Your task to perform on an android device: open a bookmark in the chrome app Image 0: 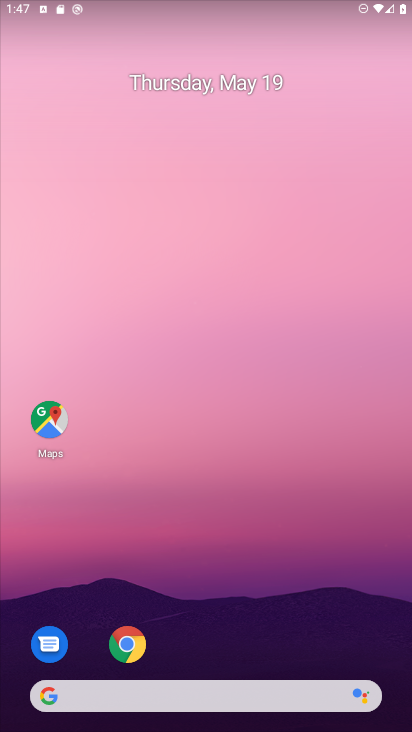
Step 0: drag from (321, 602) to (205, 7)
Your task to perform on an android device: open a bookmark in the chrome app Image 1: 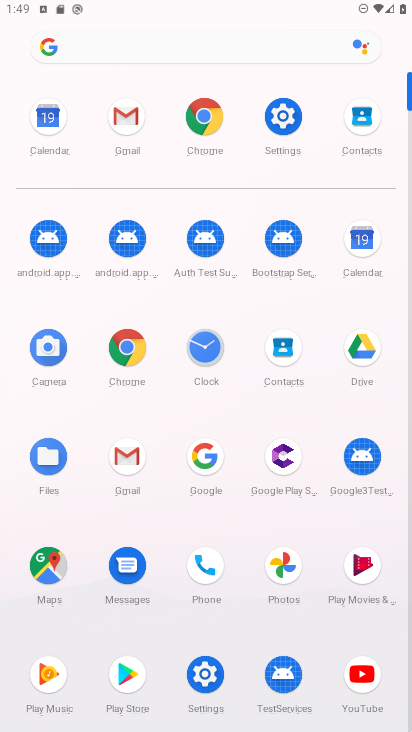
Step 1: click (130, 362)
Your task to perform on an android device: open a bookmark in the chrome app Image 2: 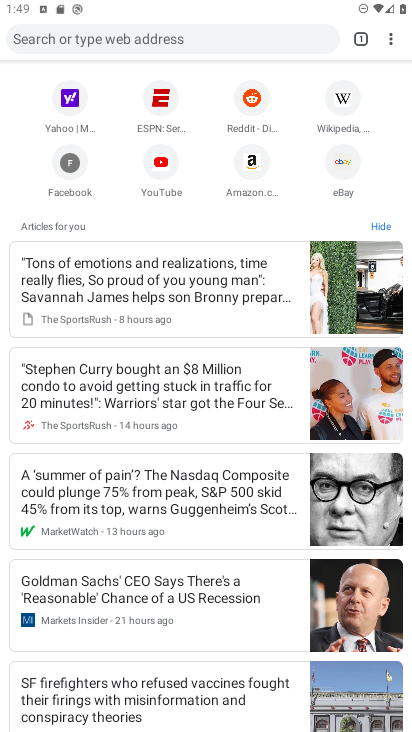
Step 2: click (391, 36)
Your task to perform on an android device: open a bookmark in the chrome app Image 3: 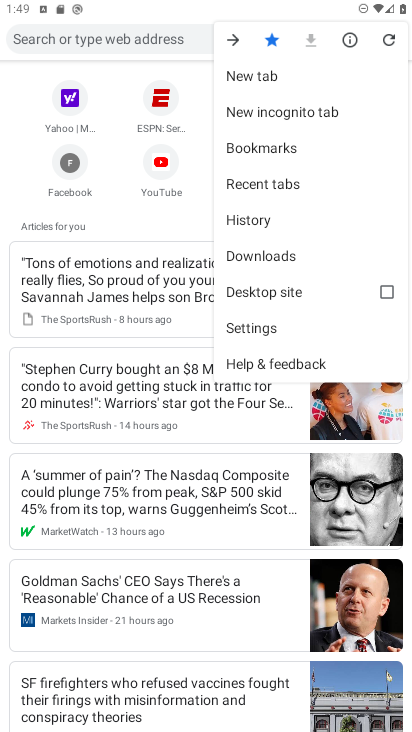
Step 3: click (290, 149)
Your task to perform on an android device: open a bookmark in the chrome app Image 4: 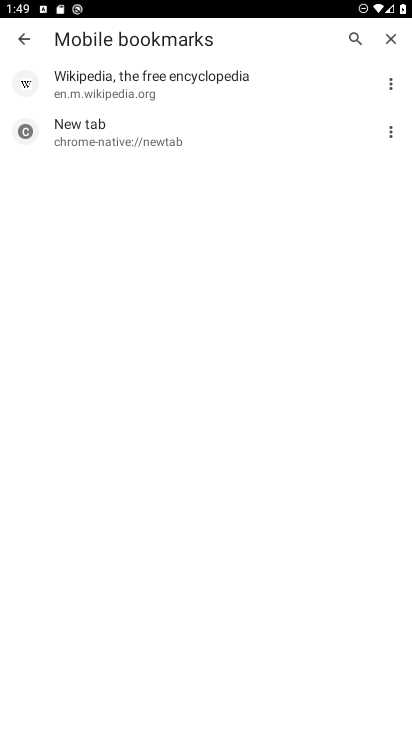
Step 4: task complete